Your task to perform on an android device: Open Amazon Image 0: 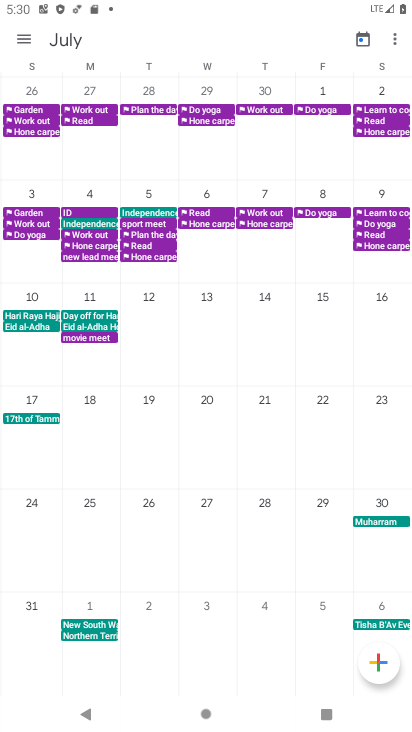
Step 0: press home button
Your task to perform on an android device: Open Amazon Image 1: 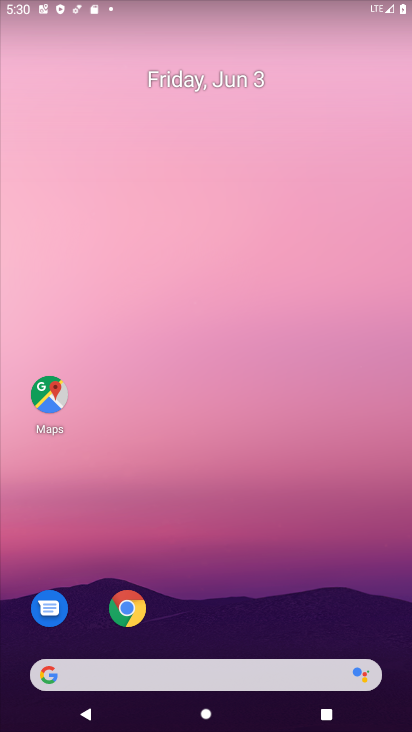
Step 1: click (140, 607)
Your task to perform on an android device: Open Amazon Image 2: 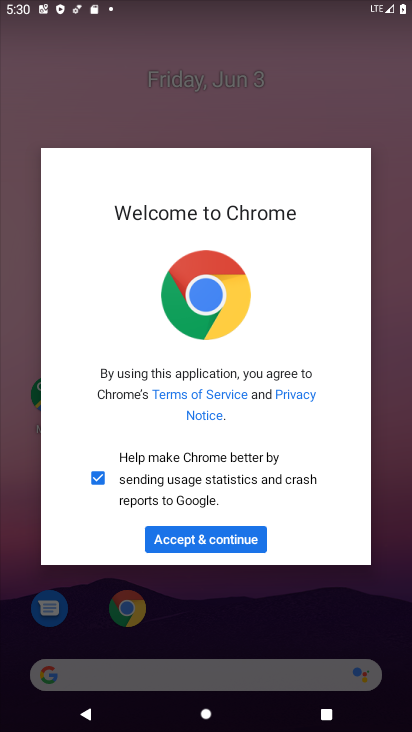
Step 2: click (178, 529)
Your task to perform on an android device: Open Amazon Image 3: 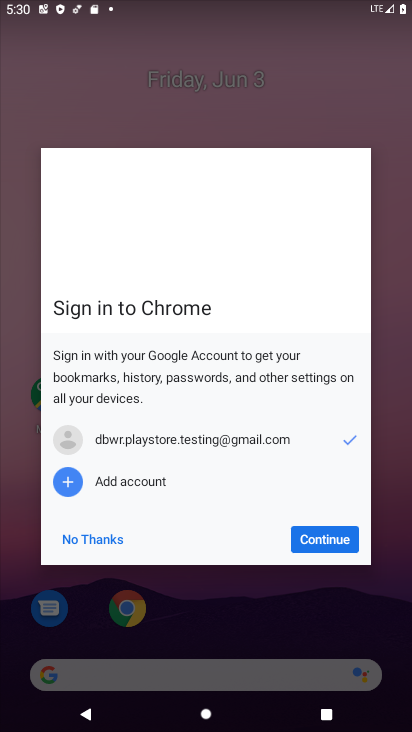
Step 3: click (331, 533)
Your task to perform on an android device: Open Amazon Image 4: 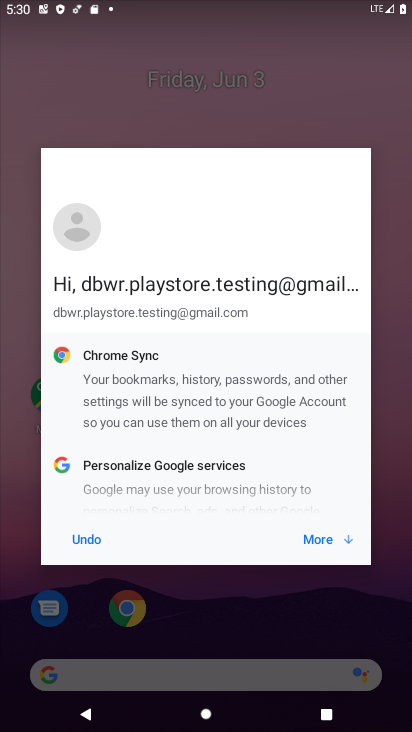
Step 4: click (331, 533)
Your task to perform on an android device: Open Amazon Image 5: 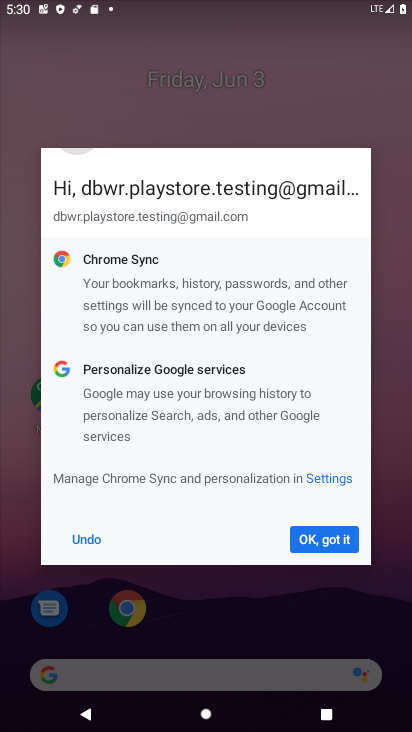
Step 5: click (331, 533)
Your task to perform on an android device: Open Amazon Image 6: 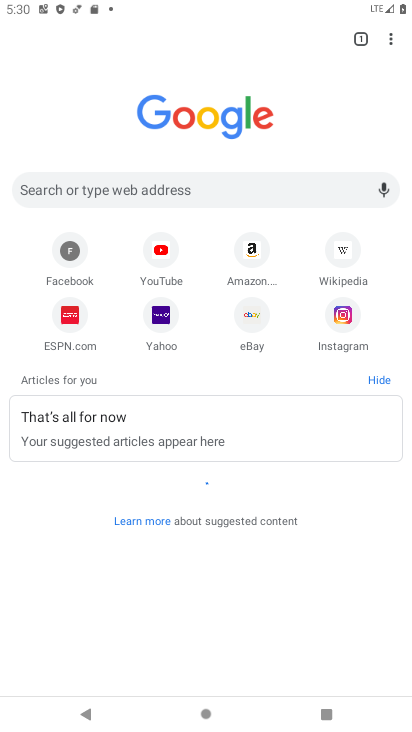
Step 6: click (245, 254)
Your task to perform on an android device: Open Amazon Image 7: 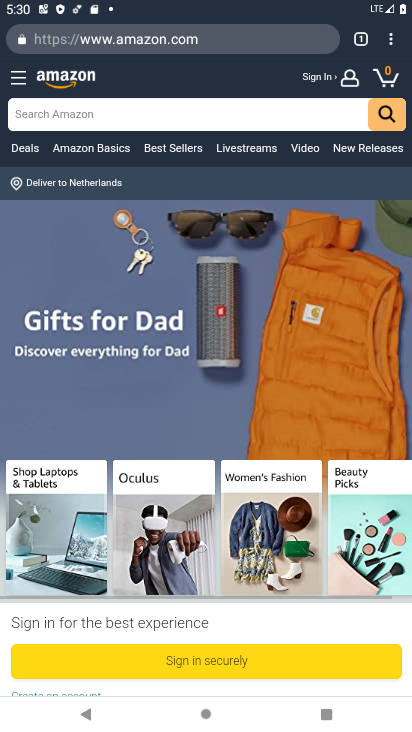
Step 7: task complete